Your task to perform on an android device: open the mobile data screen to see how much data has been used Image 0: 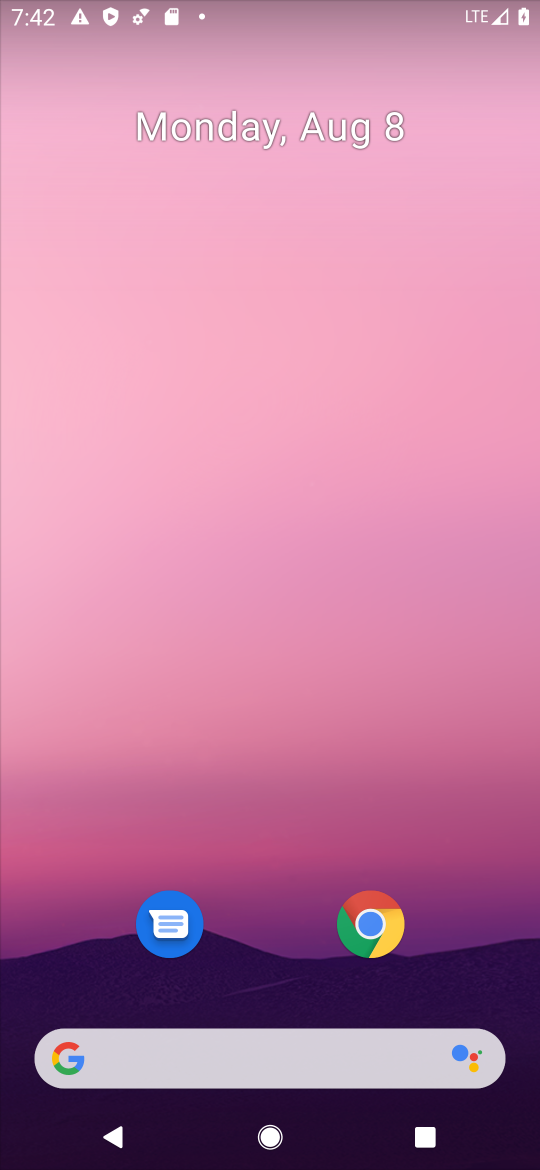
Step 0: drag from (271, 960) to (324, 4)
Your task to perform on an android device: open the mobile data screen to see how much data has been used Image 1: 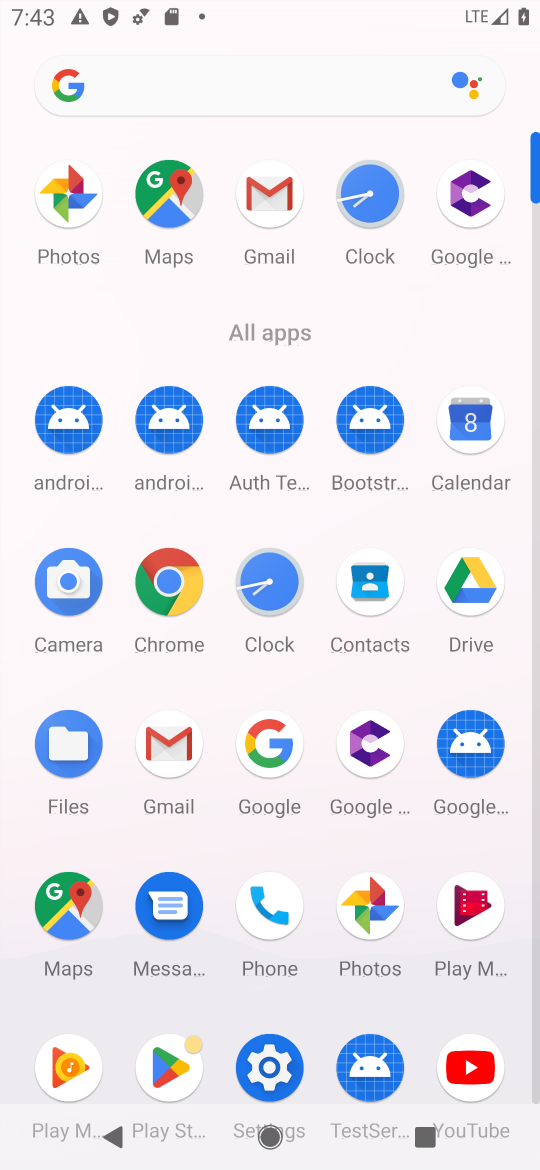
Step 1: click (264, 1094)
Your task to perform on an android device: open the mobile data screen to see how much data has been used Image 2: 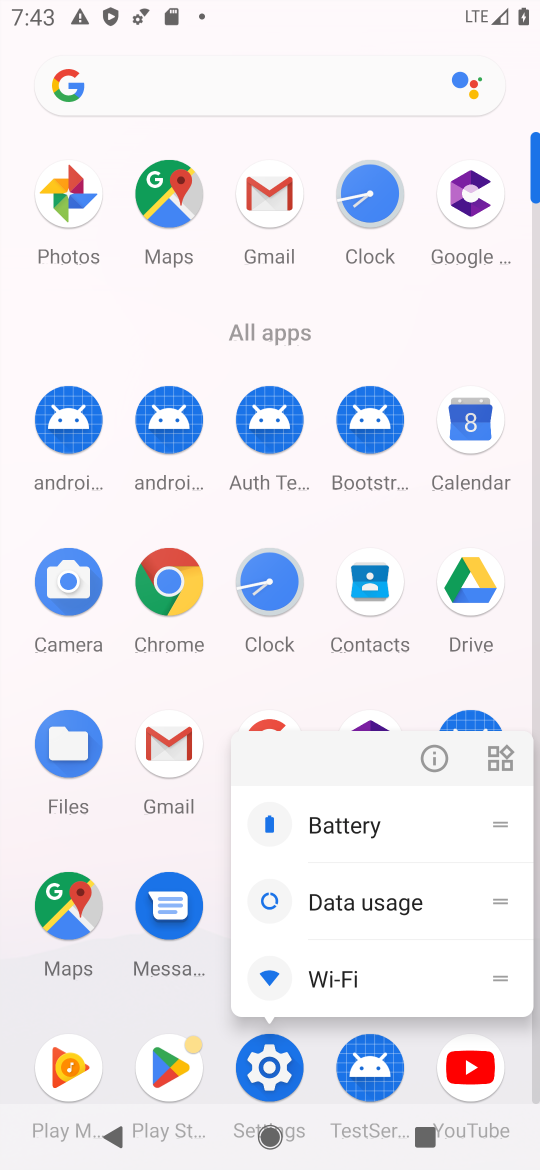
Step 2: click (436, 748)
Your task to perform on an android device: open the mobile data screen to see how much data has been used Image 3: 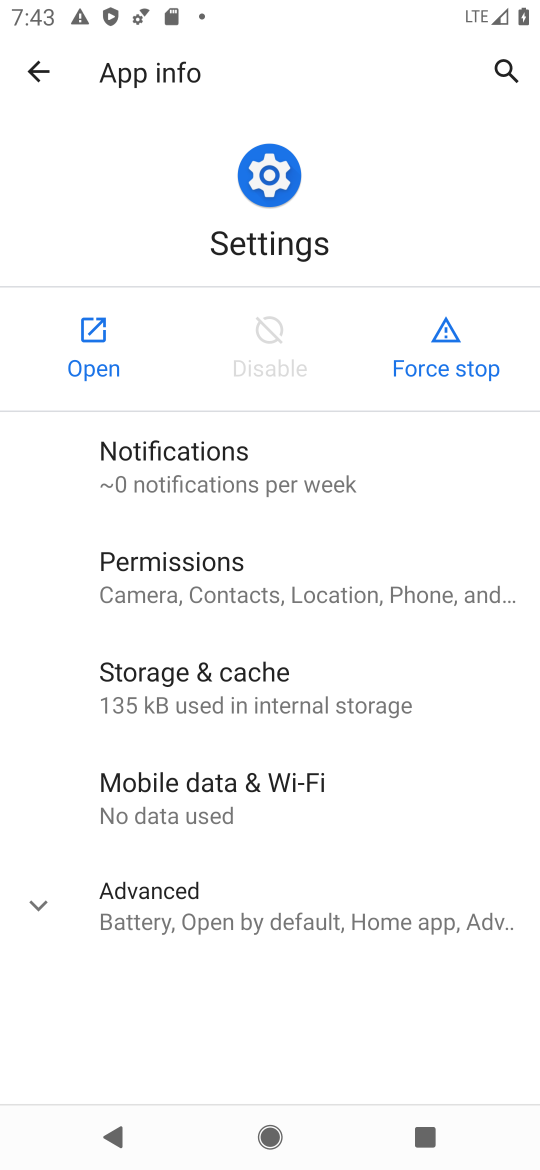
Step 3: click (87, 378)
Your task to perform on an android device: open the mobile data screen to see how much data has been used Image 4: 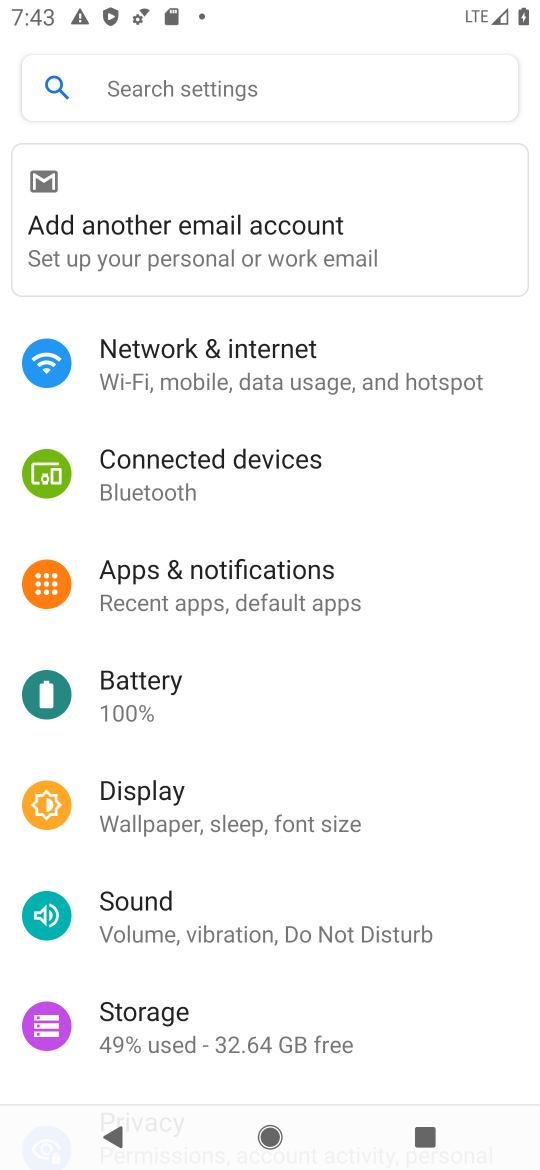
Step 4: click (205, 365)
Your task to perform on an android device: open the mobile data screen to see how much data has been used Image 5: 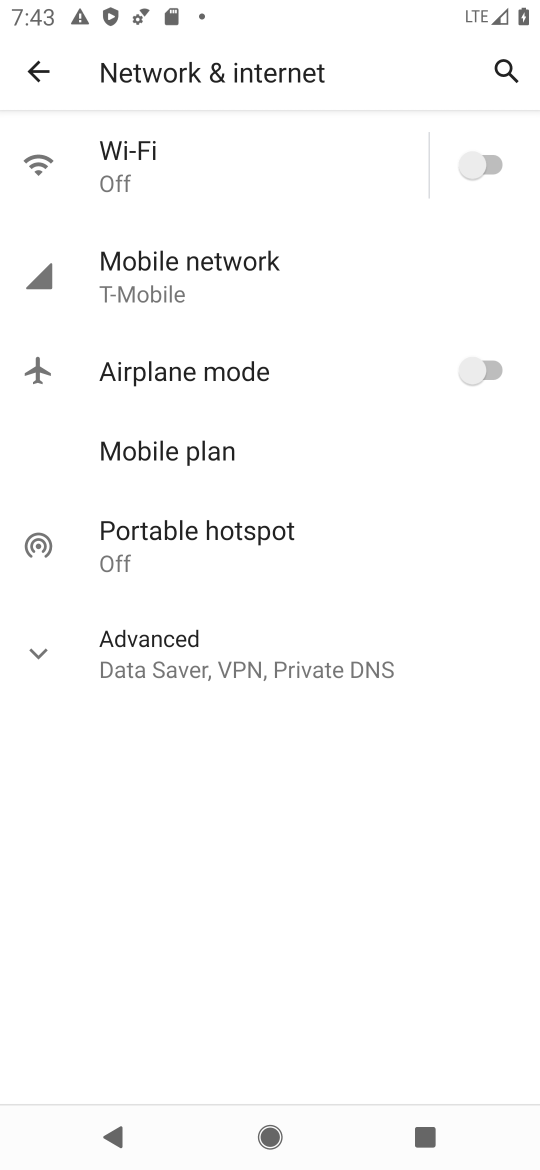
Step 5: click (261, 279)
Your task to perform on an android device: open the mobile data screen to see how much data has been used Image 6: 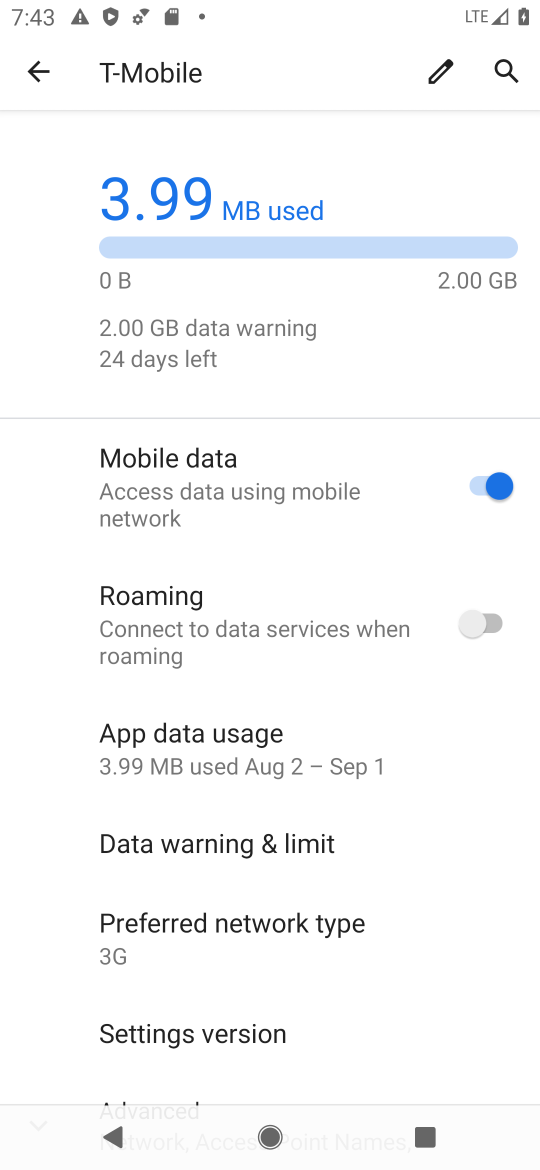
Step 6: task complete